Your task to perform on an android device: open a bookmark in the chrome app Image 0: 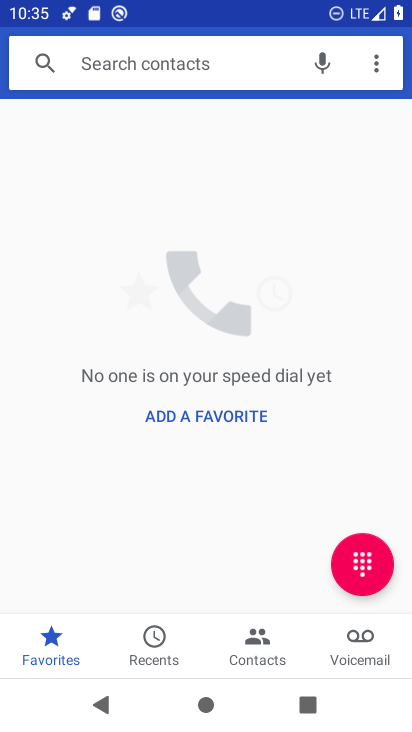
Step 0: press home button
Your task to perform on an android device: open a bookmark in the chrome app Image 1: 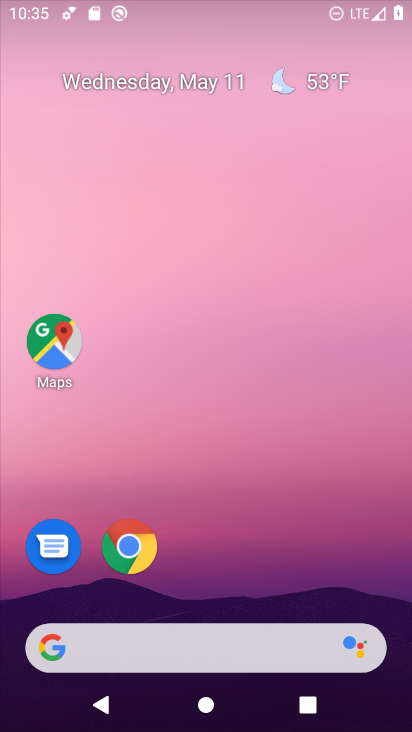
Step 1: drag from (395, 635) to (327, 81)
Your task to perform on an android device: open a bookmark in the chrome app Image 2: 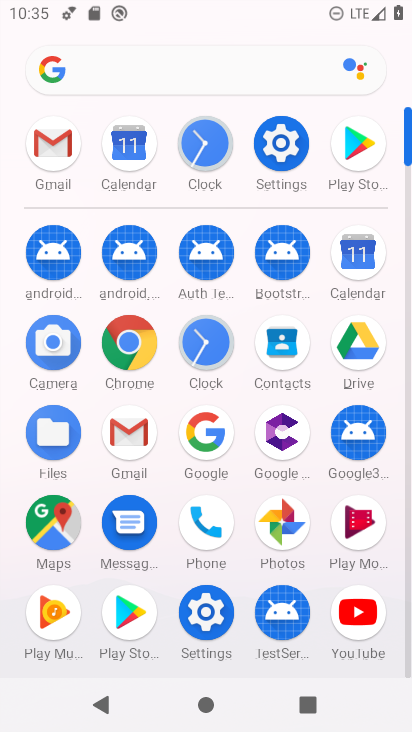
Step 2: click (144, 329)
Your task to perform on an android device: open a bookmark in the chrome app Image 3: 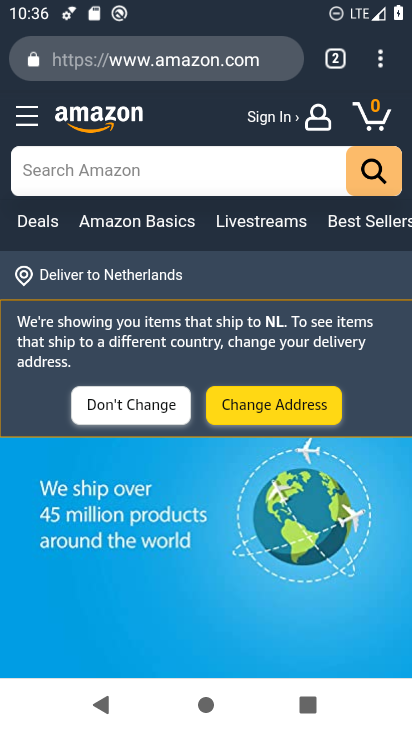
Step 3: press back button
Your task to perform on an android device: open a bookmark in the chrome app Image 4: 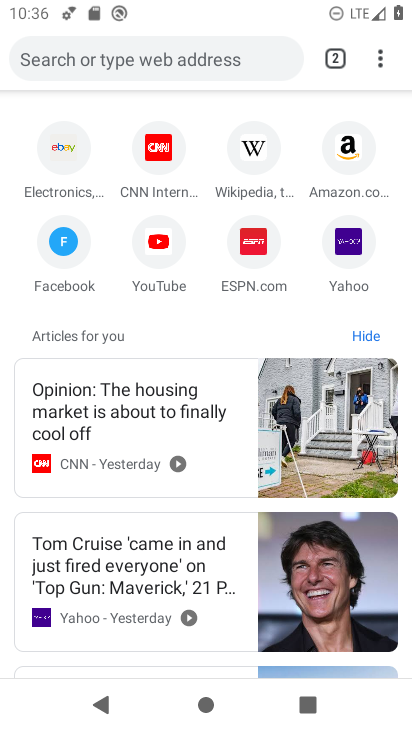
Step 4: click (374, 59)
Your task to perform on an android device: open a bookmark in the chrome app Image 5: 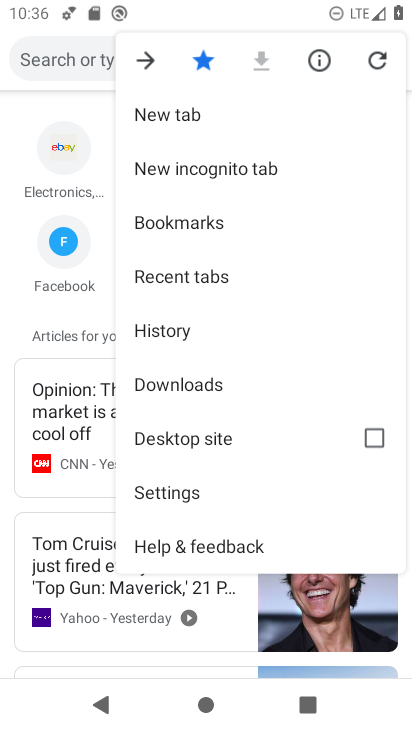
Step 5: click (158, 236)
Your task to perform on an android device: open a bookmark in the chrome app Image 6: 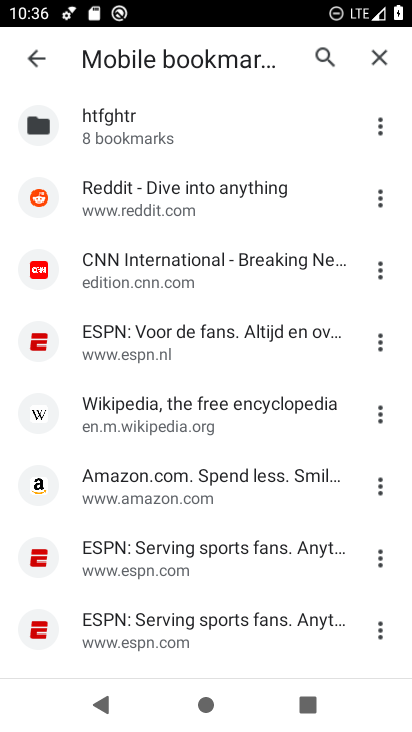
Step 6: task complete